Your task to perform on an android device: open chrome privacy settings Image 0: 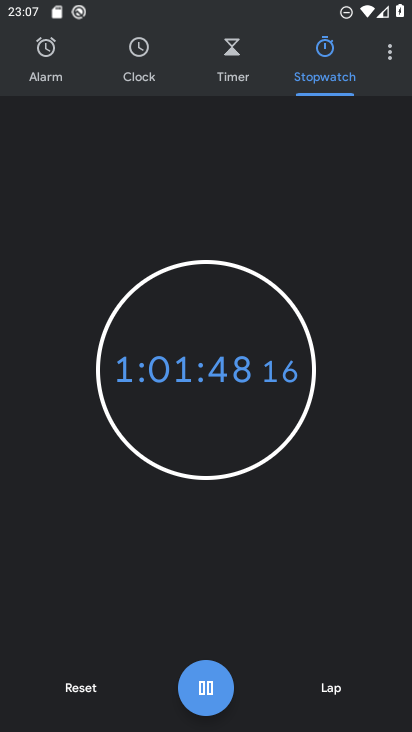
Step 0: press home button
Your task to perform on an android device: open chrome privacy settings Image 1: 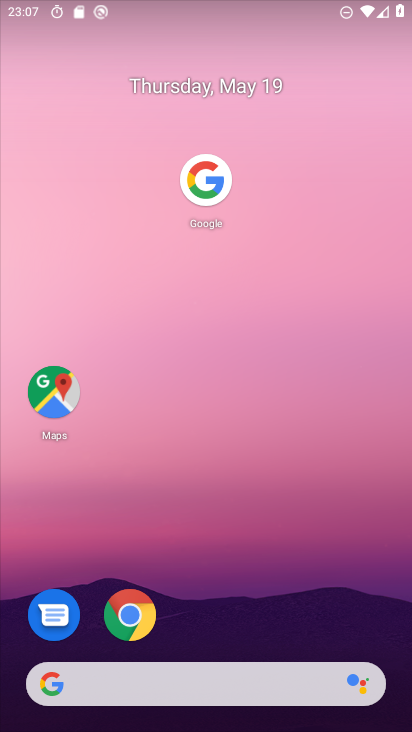
Step 1: click (129, 606)
Your task to perform on an android device: open chrome privacy settings Image 2: 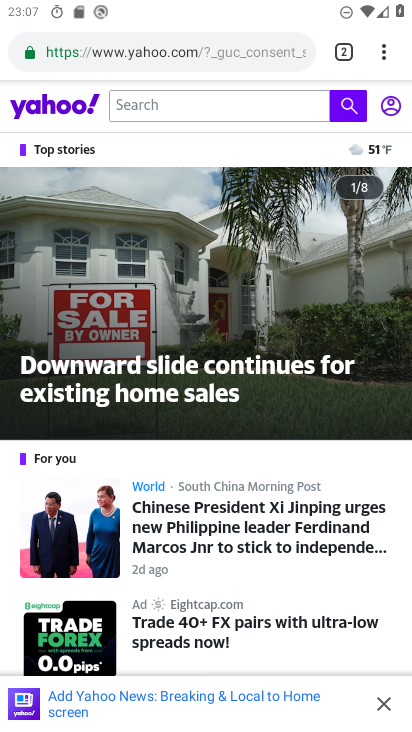
Step 2: click (375, 54)
Your task to perform on an android device: open chrome privacy settings Image 3: 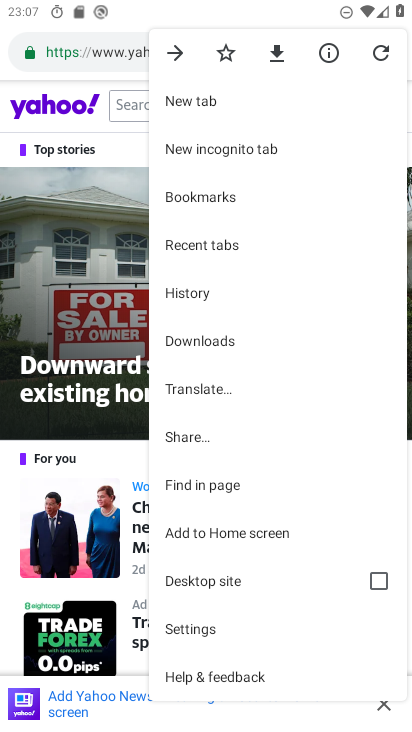
Step 3: click (211, 627)
Your task to perform on an android device: open chrome privacy settings Image 4: 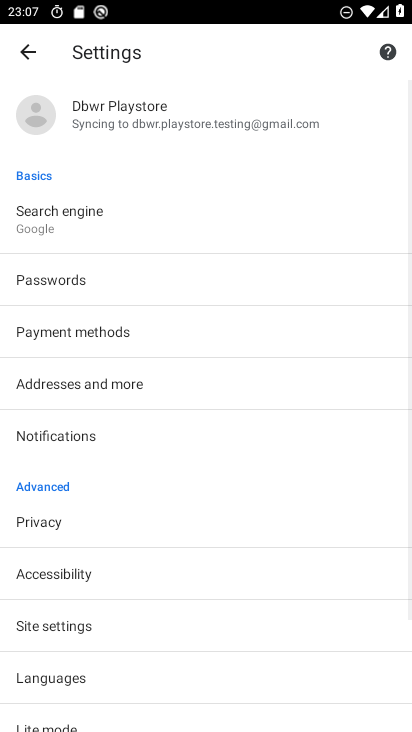
Step 4: click (76, 515)
Your task to perform on an android device: open chrome privacy settings Image 5: 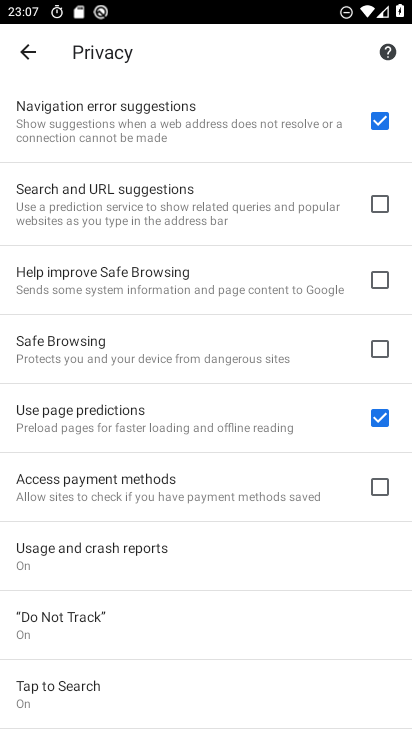
Step 5: task complete